Your task to perform on an android device: Go to Maps Image 0: 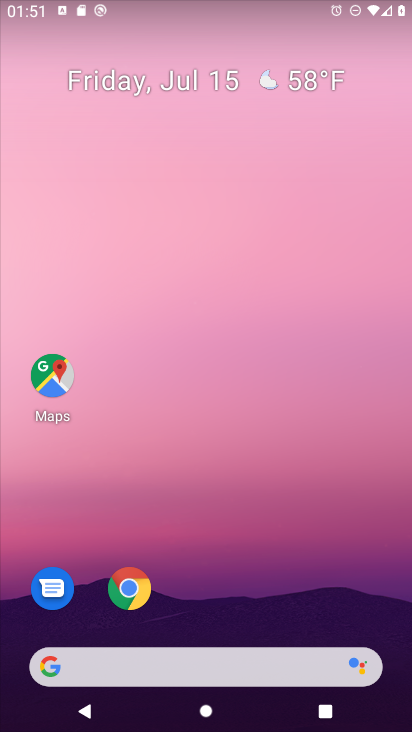
Step 0: click (52, 374)
Your task to perform on an android device: Go to Maps Image 1: 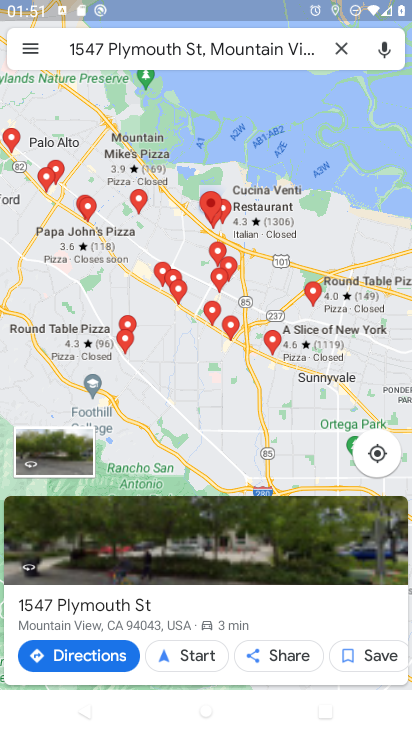
Step 1: click (340, 48)
Your task to perform on an android device: Go to Maps Image 2: 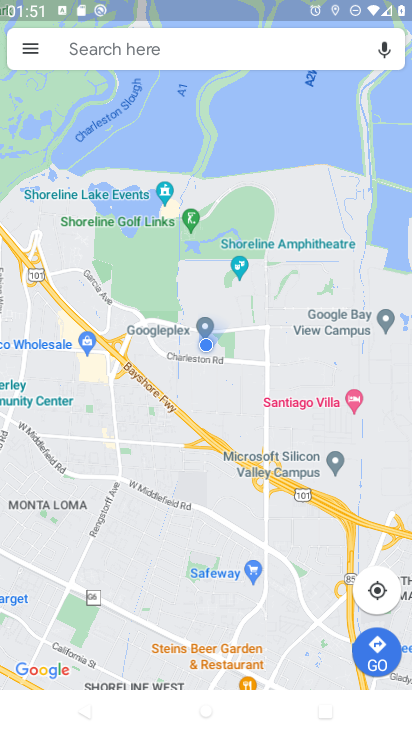
Step 2: task complete